Your task to perform on an android device: change the clock style Image 0: 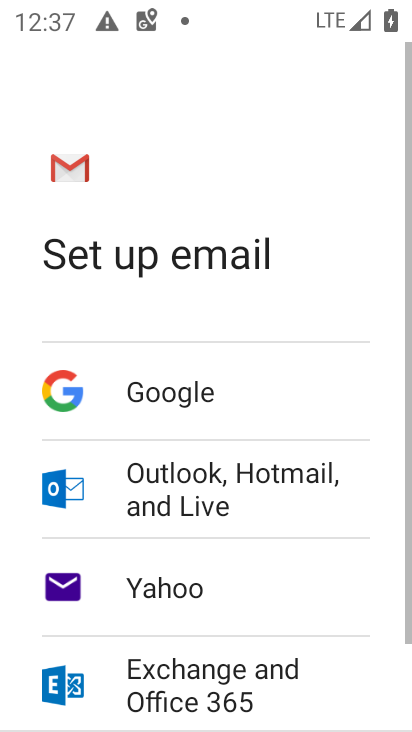
Step 0: press home button
Your task to perform on an android device: change the clock style Image 1: 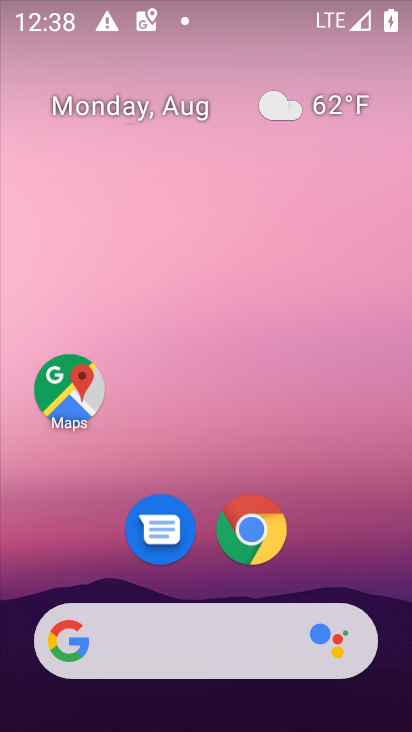
Step 1: drag from (158, 599) to (141, 248)
Your task to perform on an android device: change the clock style Image 2: 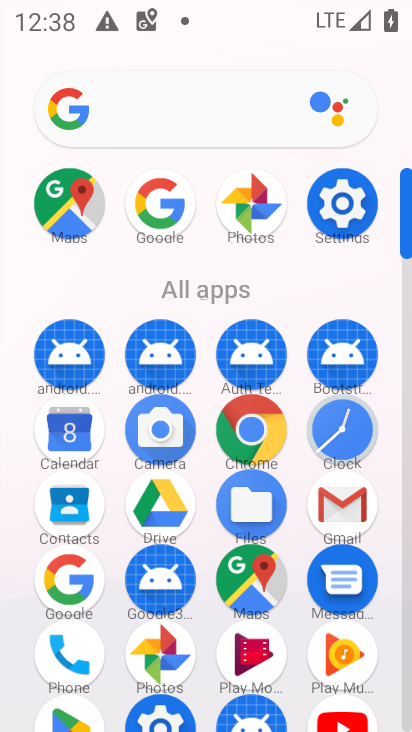
Step 2: click (339, 429)
Your task to perform on an android device: change the clock style Image 3: 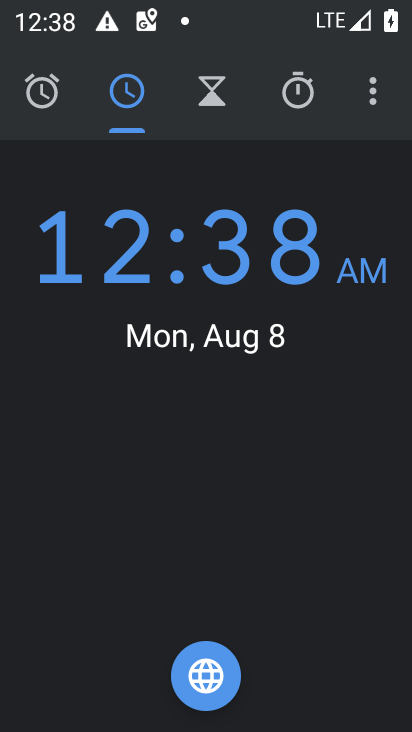
Step 3: click (366, 92)
Your task to perform on an android device: change the clock style Image 4: 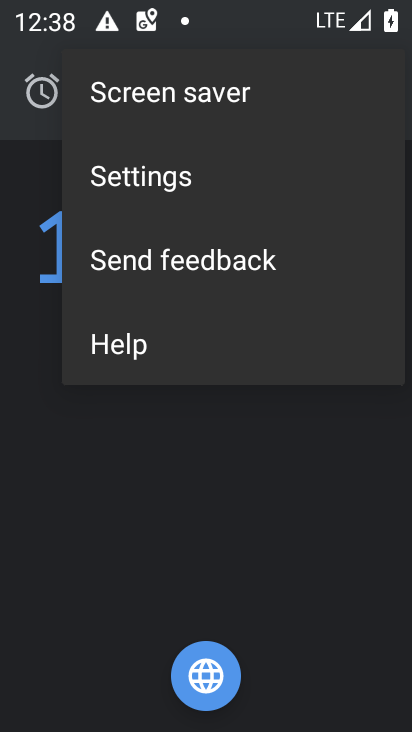
Step 4: click (179, 180)
Your task to perform on an android device: change the clock style Image 5: 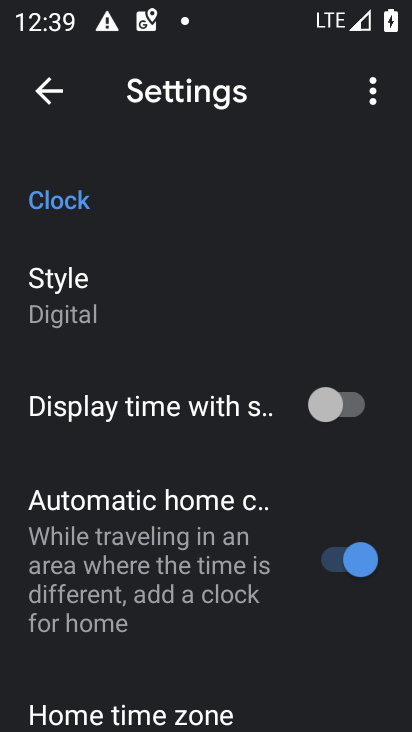
Step 5: click (80, 305)
Your task to perform on an android device: change the clock style Image 6: 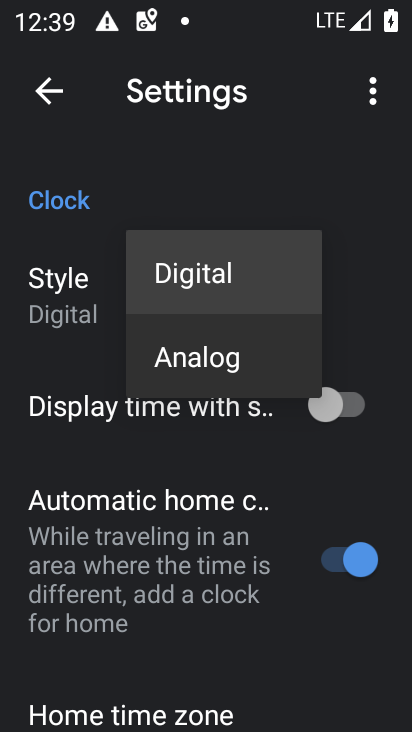
Step 6: click (185, 357)
Your task to perform on an android device: change the clock style Image 7: 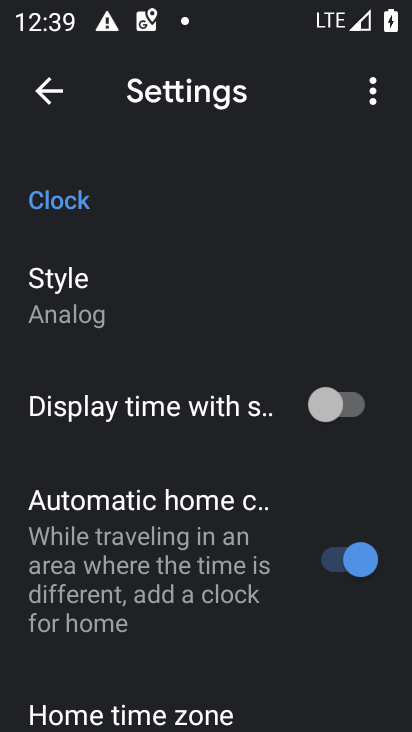
Step 7: task complete